Your task to perform on an android device: snooze an email in the gmail app Image 0: 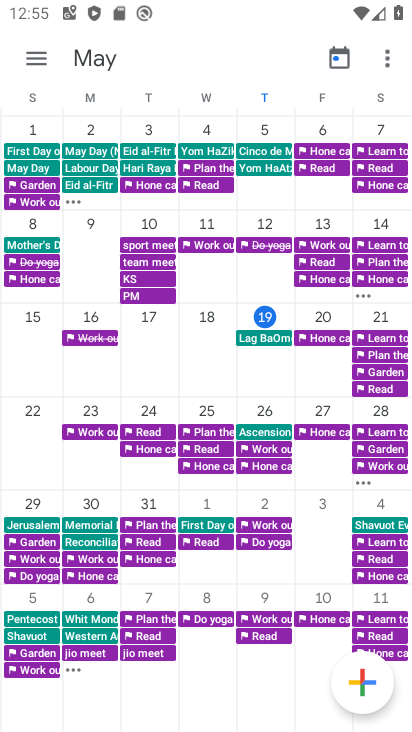
Step 0: press home button
Your task to perform on an android device: snooze an email in the gmail app Image 1: 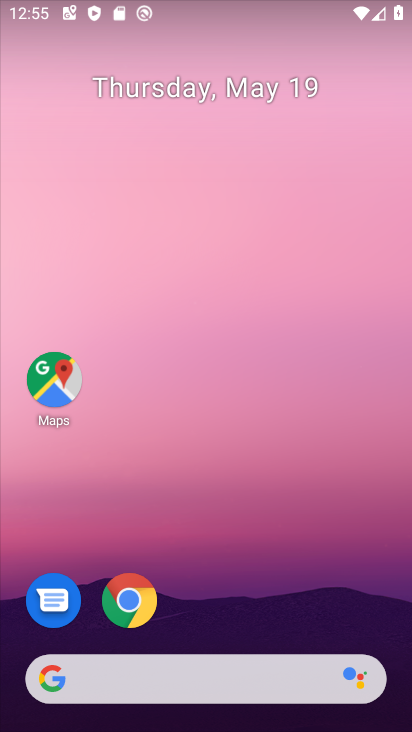
Step 1: drag from (230, 655) to (250, 494)
Your task to perform on an android device: snooze an email in the gmail app Image 2: 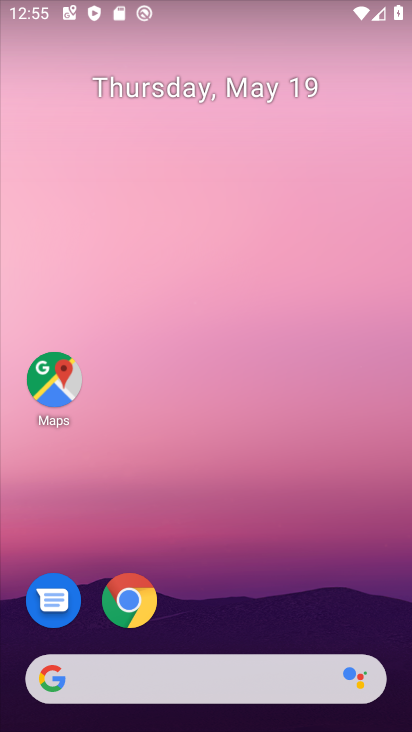
Step 2: drag from (240, 634) to (384, 0)
Your task to perform on an android device: snooze an email in the gmail app Image 3: 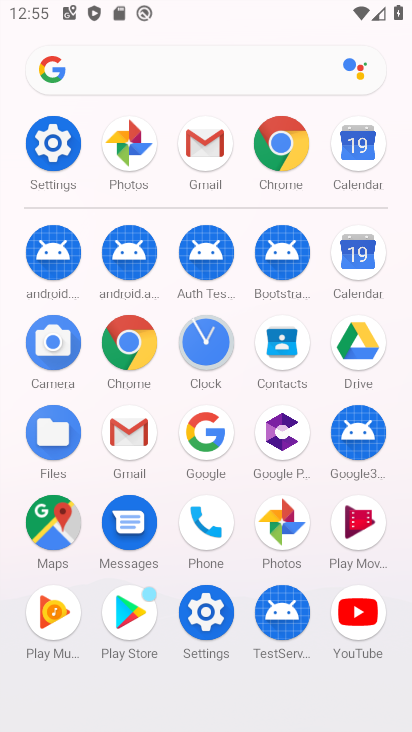
Step 3: click (147, 436)
Your task to perform on an android device: snooze an email in the gmail app Image 4: 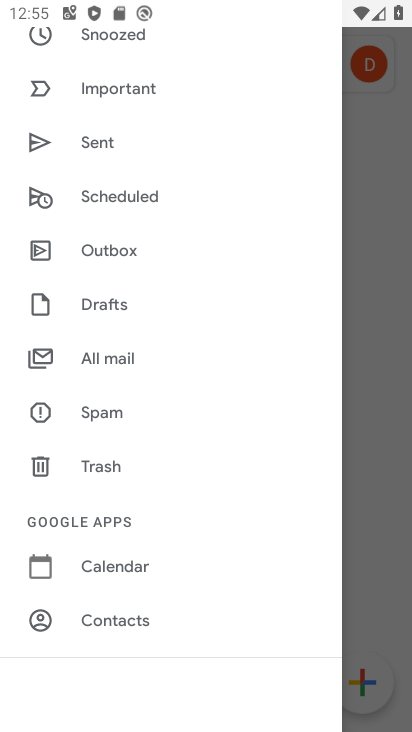
Step 4: drag from (112, 170) to (103, 413)
Your task to perform on an android device: snooze an email in the gmail app Image 5: 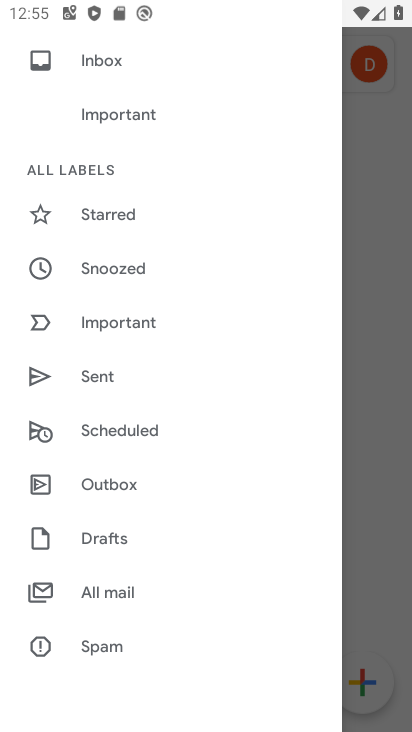
Step 5: click (86, 258)
Your task to perform on an android device: snooze an email in the gmail app Image 6: 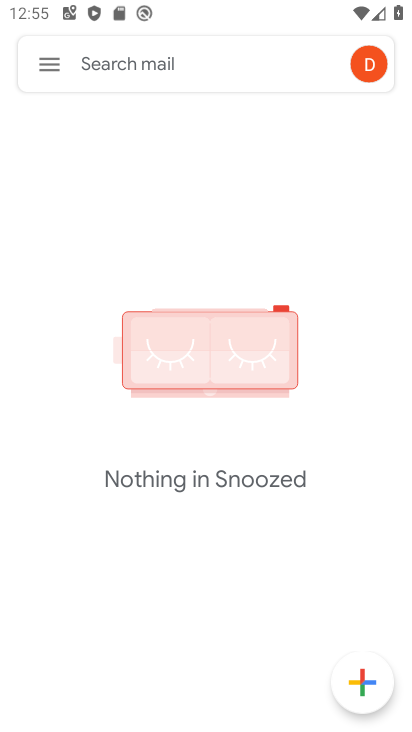
Step 6: task complete